Your task to perform on an android device: Go to location settings Image 0: 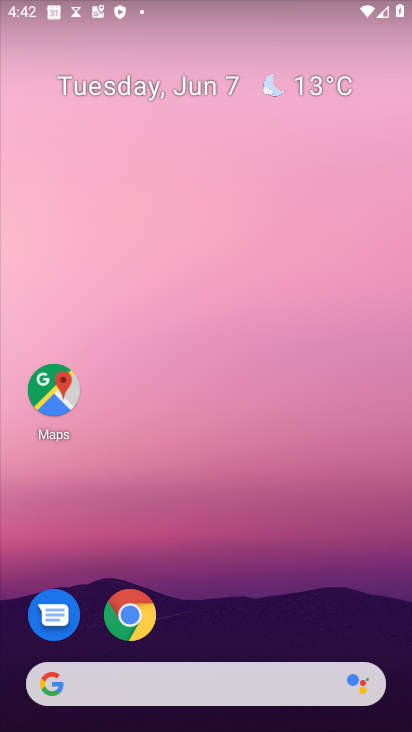
Step 0: drag from (215, 644) to (187, 67)
Your task to perform on an android device: Go to location settings Image 1: 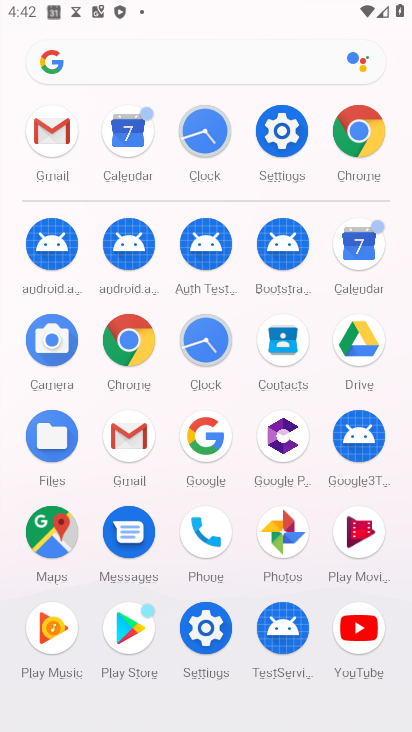
Step 1: click (190, 621)
Your task to perform on an android device: Go to location settings Image 2: 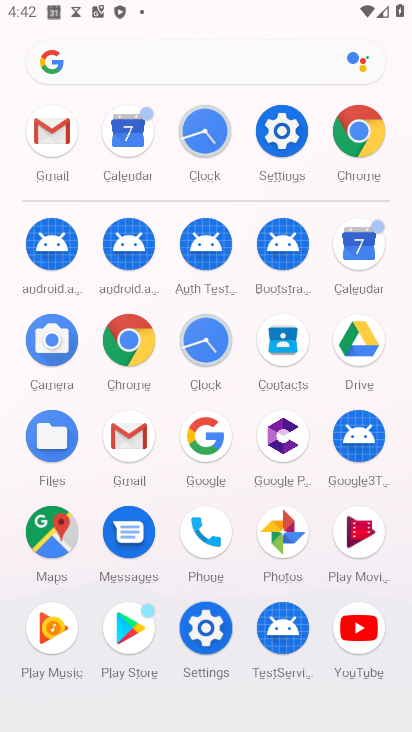
Step 2: click (288, 618)
Your task to perform on an android device: Go to location settings Image 3: 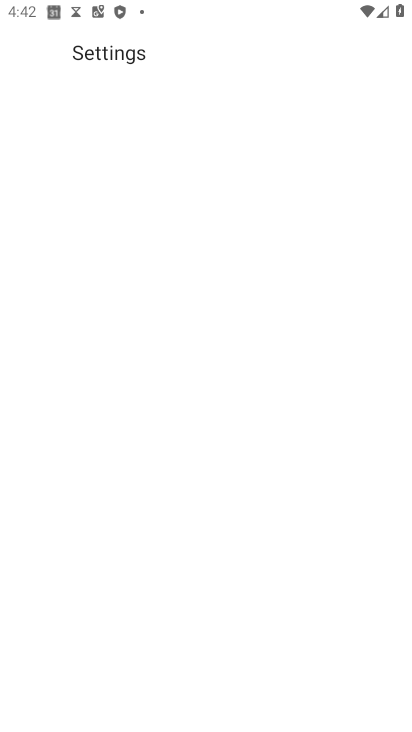
Step 3: click (208, 630)
Your task to perform on an android device: Go to location settings Image 4: 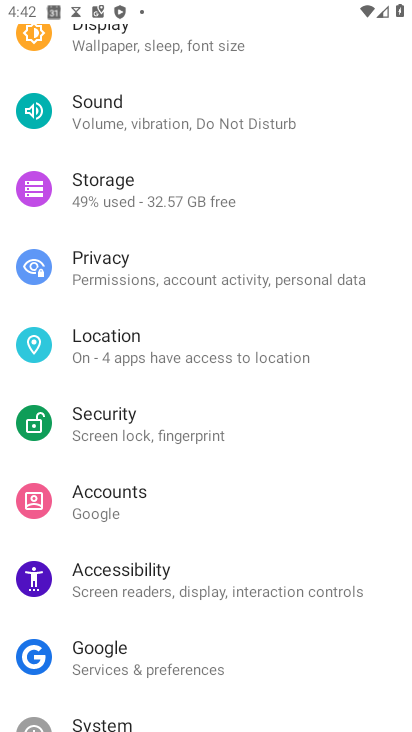
Step 4: click (207, 630)
Your task to perform on an android device: Go to location settings Image 5: 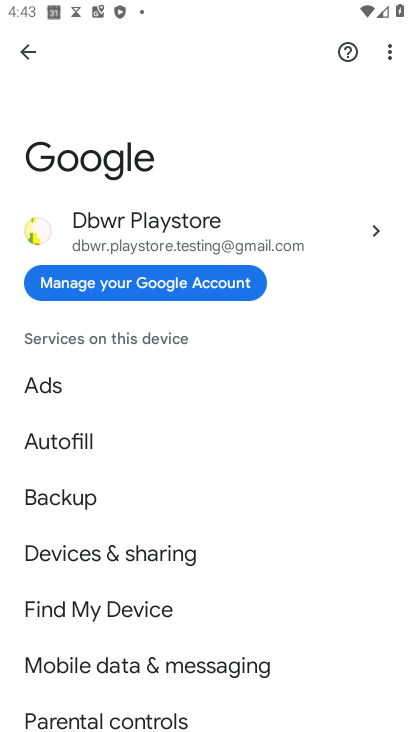
Step 5: press back button
Your task to perform on an android device: Go to location settings Image 6: 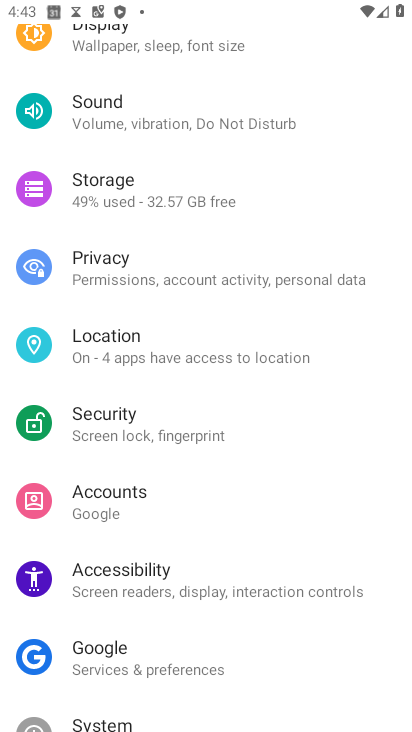
Step 6: click (123, 339)
Your task to perform on an android device: Go to location settings Image 7: 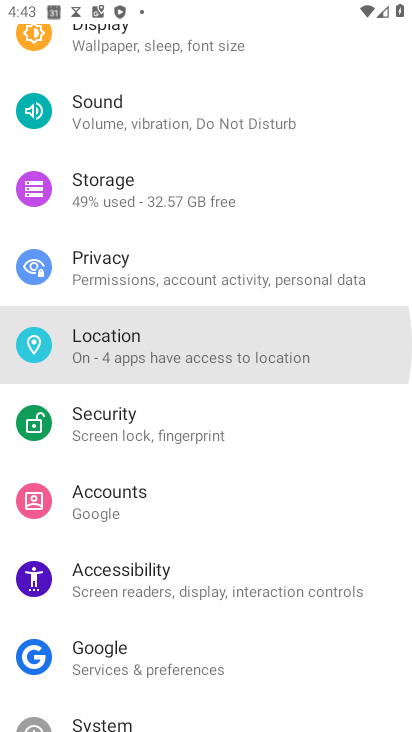
Step 7: click (123, 339)
Your task to perform on an android device: Go to location settings Image 8: 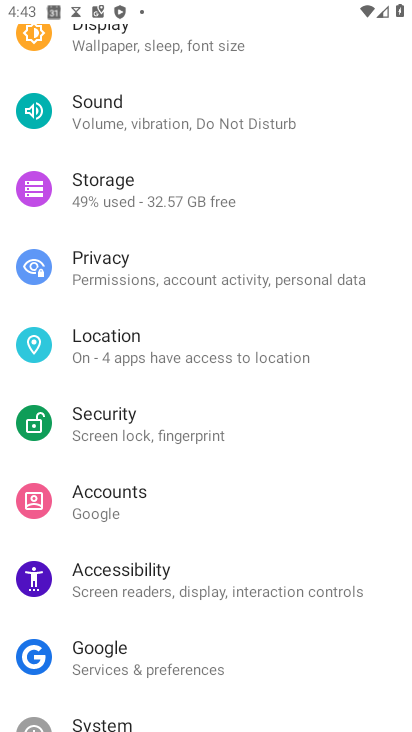
Step 8: click (119, 351)
Your task to perform on an android device: Go to location settings Image 9: 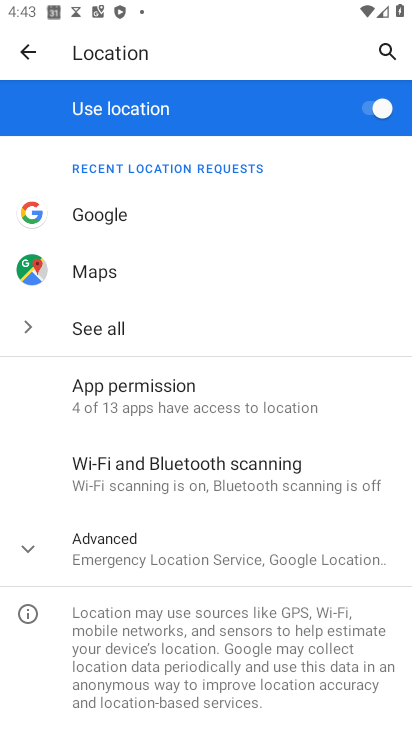
Step 9: task complete